Your task to perform on an android device: Go to accessibility settings Image 0: 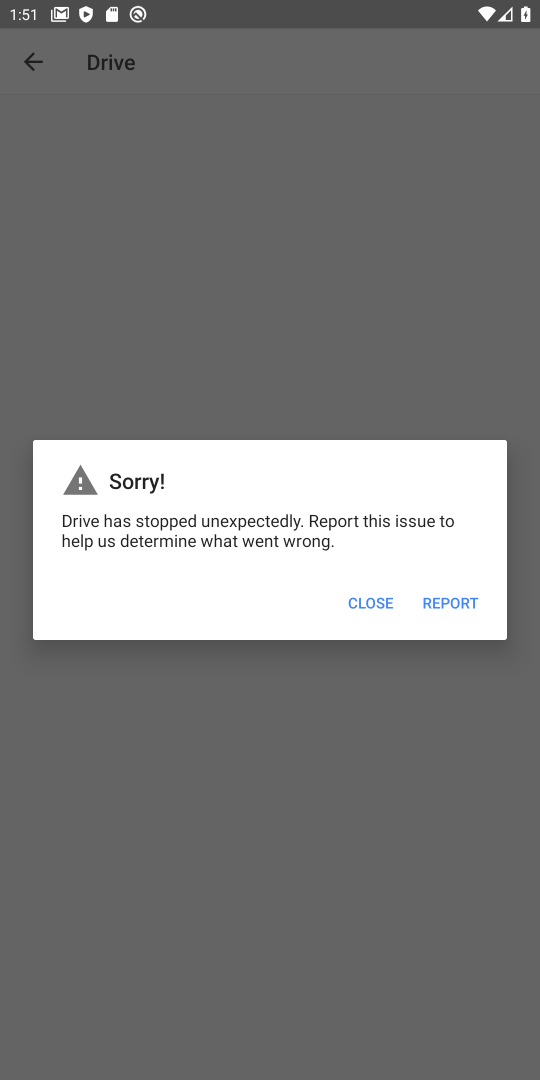
Step 0: press home button
Your task to perform on an android device: Go to accessibility settings Image 1: 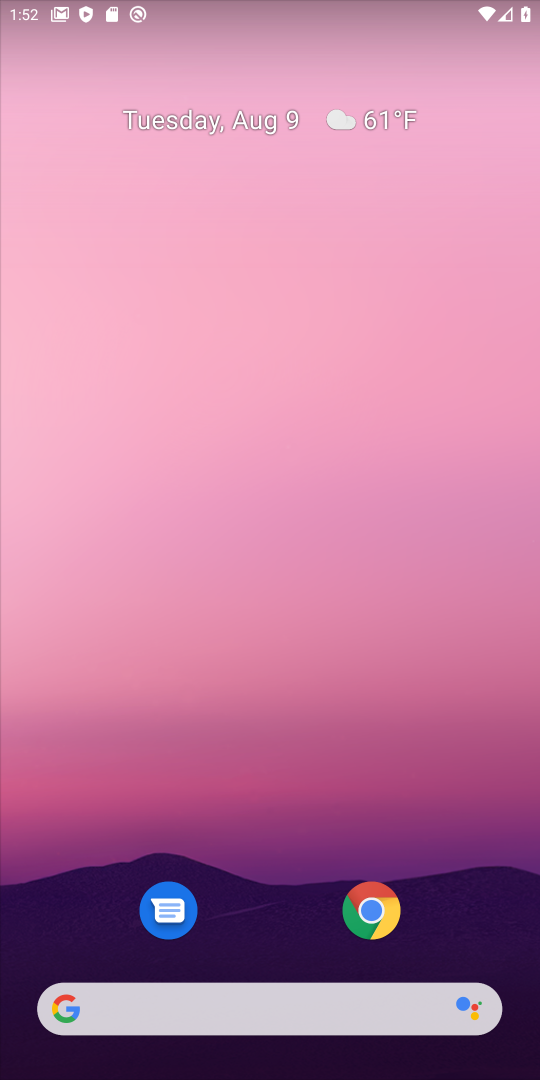
Step 1: drag from (282, 887) to (288, 192)
Your task to perform on an android device: Go to accessibility settings Image 2: 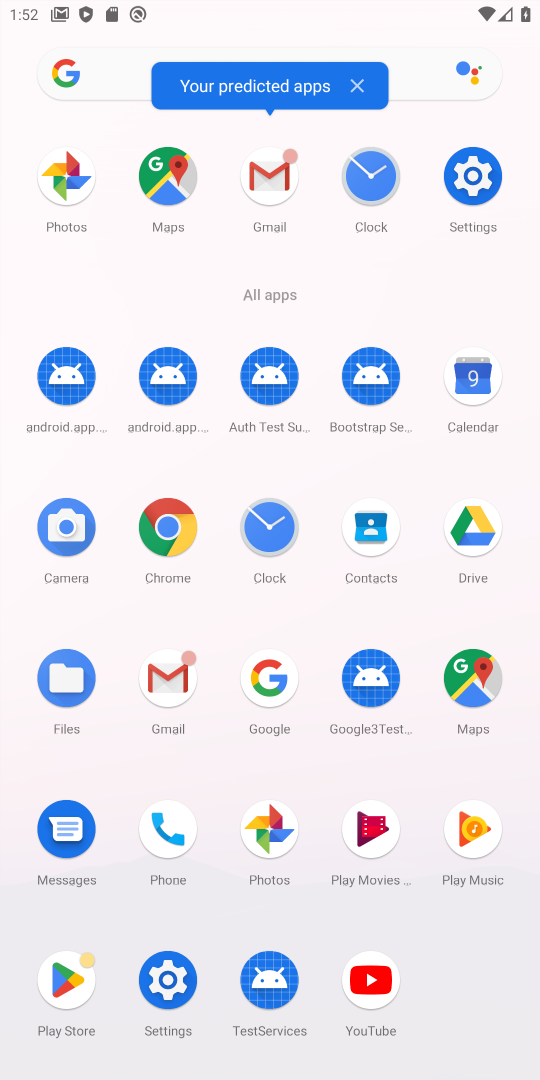
Step 2: click (480, 192)
Your task to perform on an android device: Go to accessibility settings Image 3: 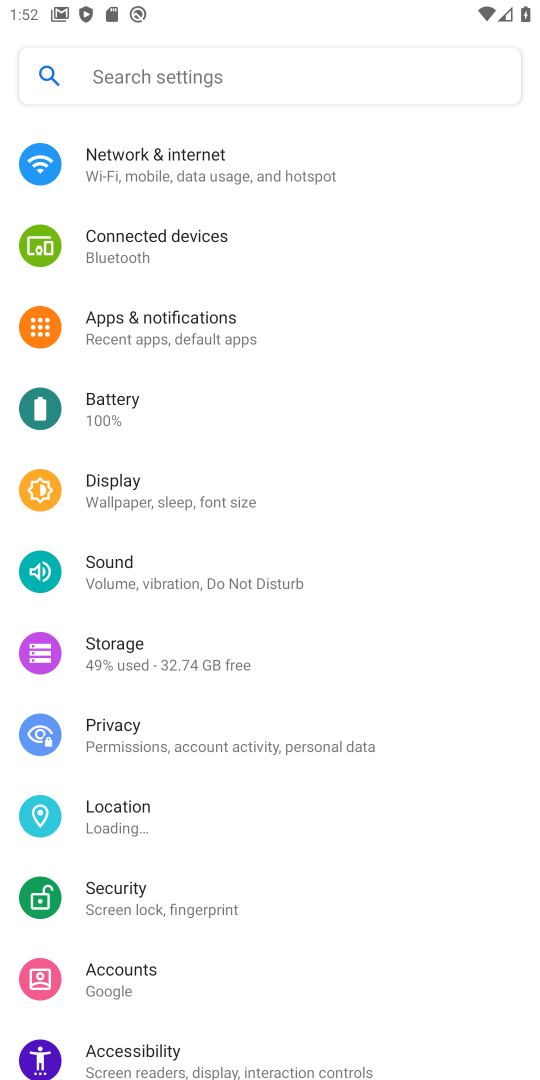
Step 3: drag from (282, 914) to (272, 277)
Your task to perform on an android device: Go to accessibility settings Image 4: 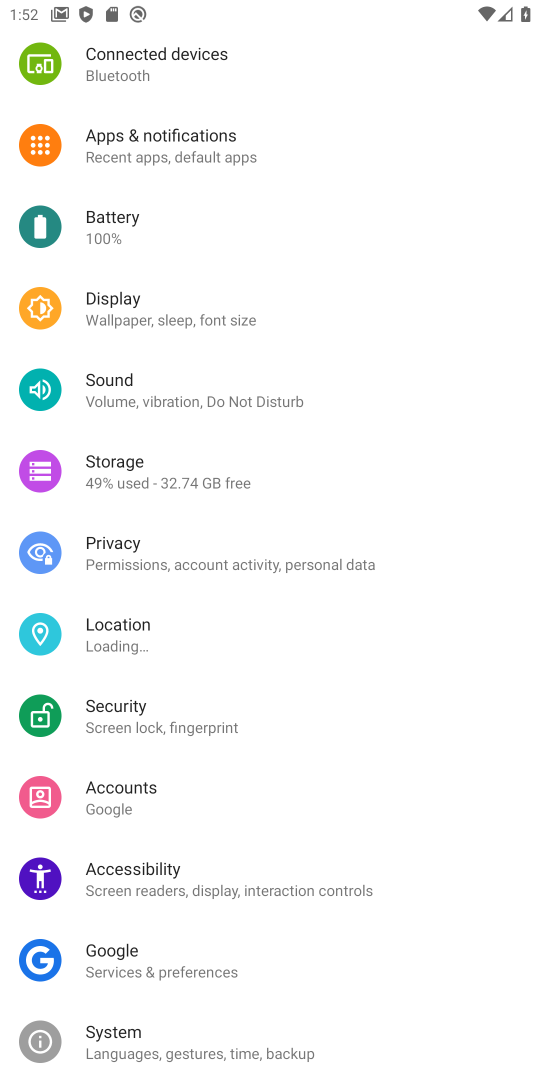
Step 4: click (205, 890)
Your task to perform on an android device: Go to accessibility settings Image 5: 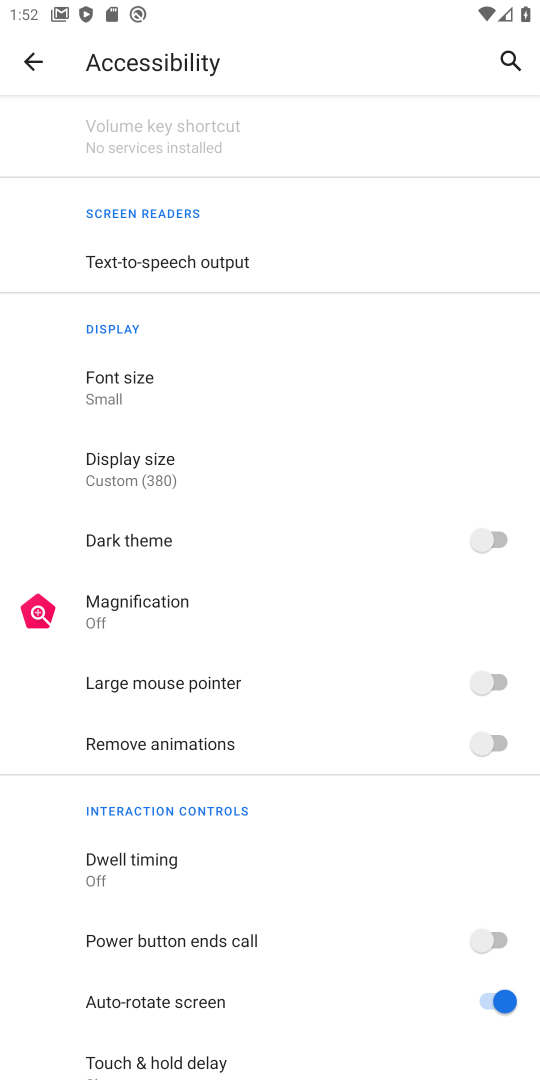
Step 5: task complete